Your task to perform on an android device: search for starred emails in the gmail app Image 0: 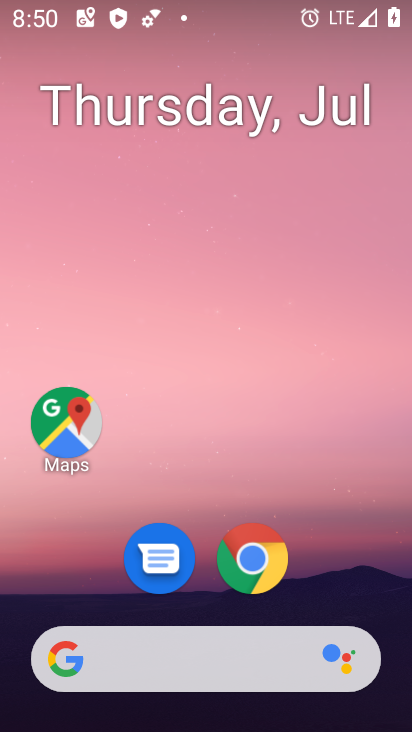
Step 0: drag from (146, 670) to (225, 219)
Your task to perform on an android device: search for starred emails in the gmail app Image 1: 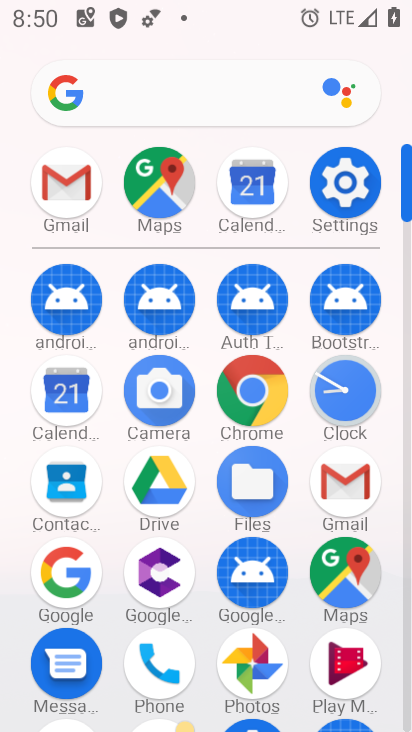
Step 1: click (344, 494)
Your task to perform on an android device: search for starred emails in the gmail app Image 2: 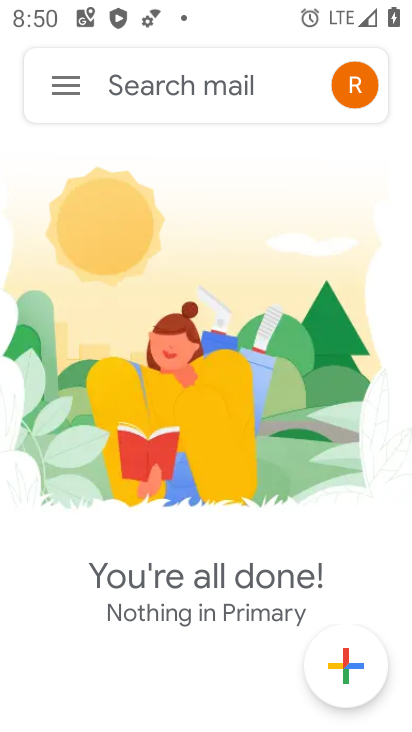
Step 2: click (69, 95)
Your task to perform on an android device: search for starred emails in the gmail app Image 3: 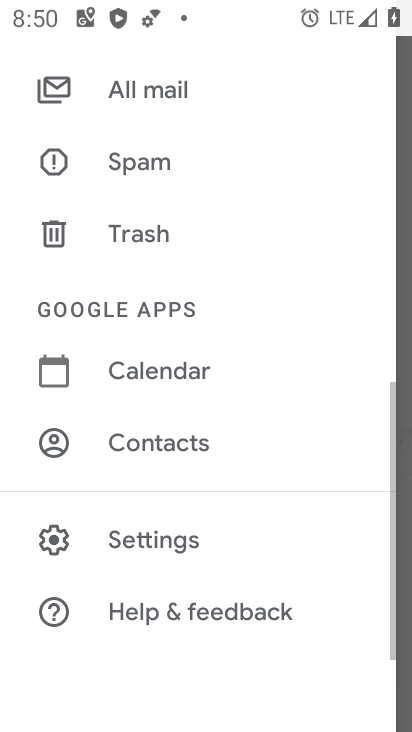
Step 3: drag from (215, 282) to (158, 561)
Your task to perform on an android device: search for starred emails in the gmail app Image 4: 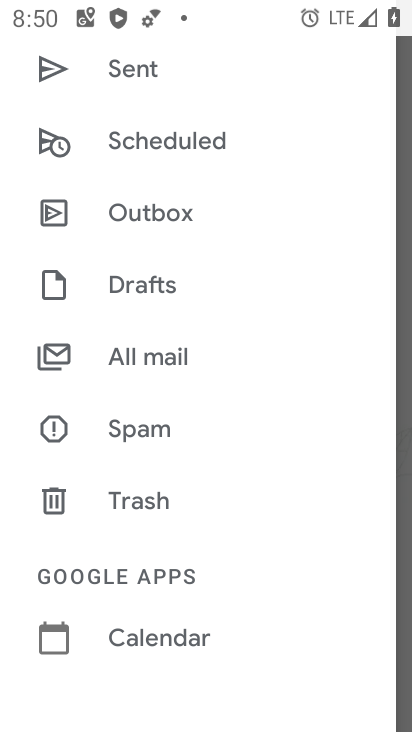
Step 4: drag from (183, 201) to (154, 473)
Your task to perform on an android device: search for starred emails in the gmail app Image 5: 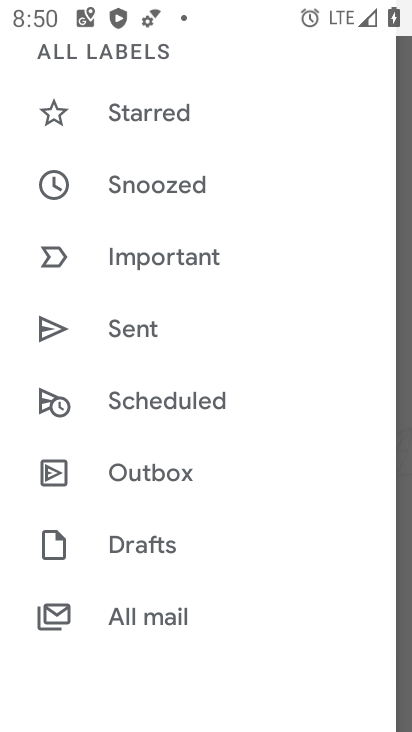
Step 5: click (169, 120)
Your task to perform on an android device: search for starred emails in the gmail app Image 6: 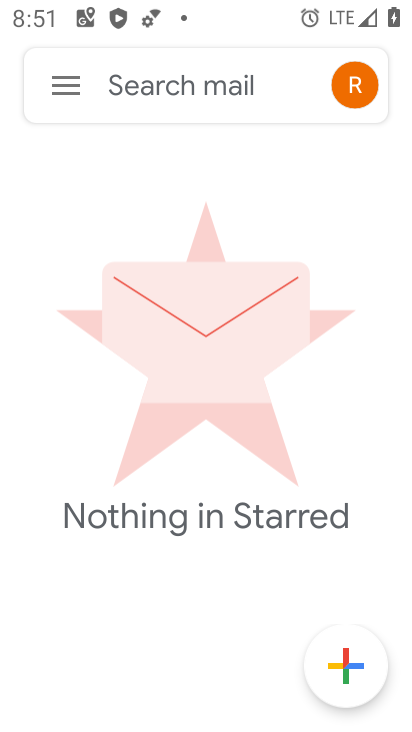
Step 6: task complete